Your task to perform on an android device: toggle sleep mode Image 0: 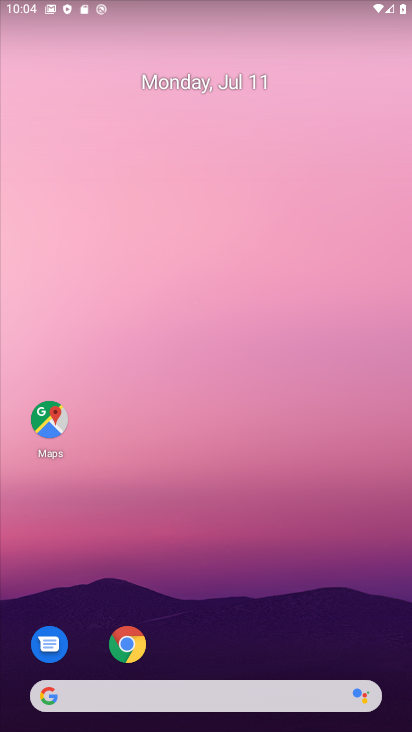
Step 0: drag from (255, 489) to (181, 212)
Your task to perform on an android device: toggle sleep mode Image 1: 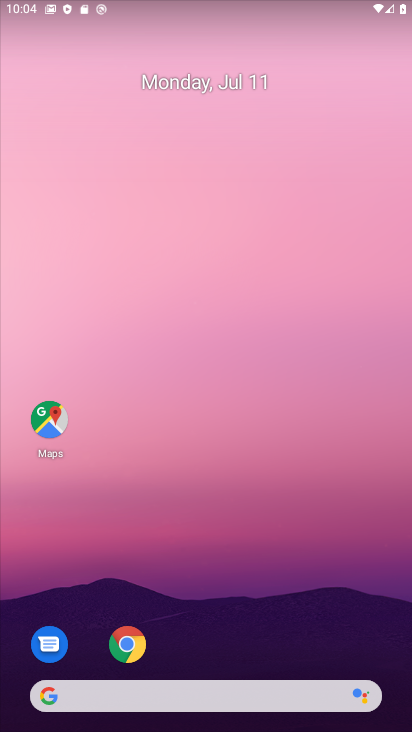
Step 1: drag from (276, 690) to (189, 121)
Your task to perform on an android device: toggle sleep mode Image 2: 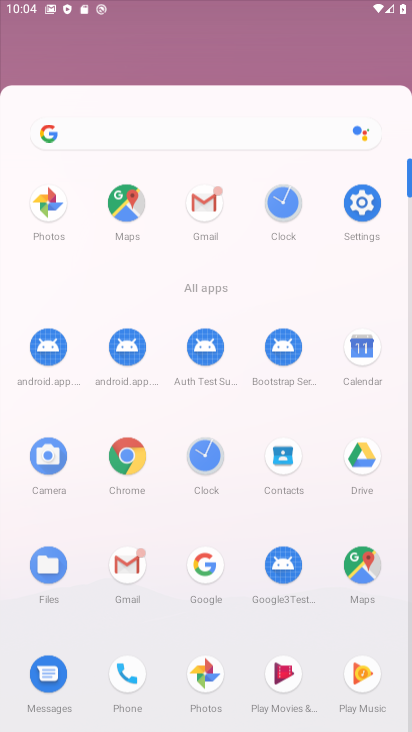
Step 2: drag from (242, 610) to (209, 52)
Your task to perform on an android device: toggle sleep mode Image 3: 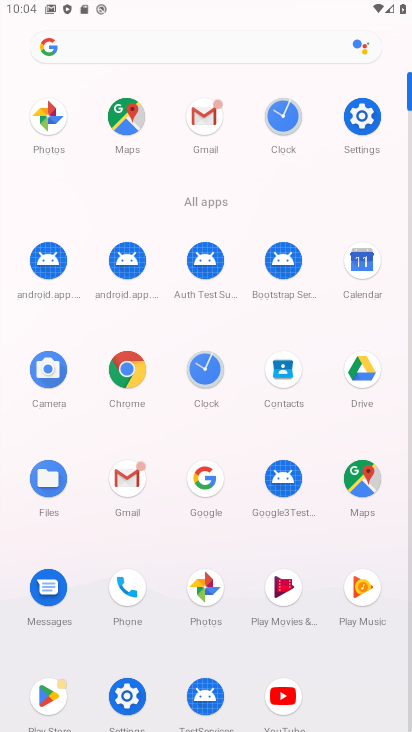
Step 3: drag from (242, 460) to (130, 46)
Your task to perform on an android device: toggle sleep mode Image 4: 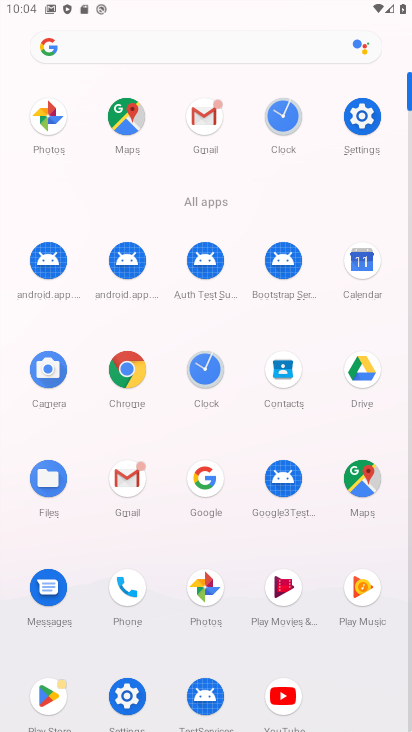
Step 4: click (368, 92)
Your task to perform on an android device: toggle sleep mode Image 5: 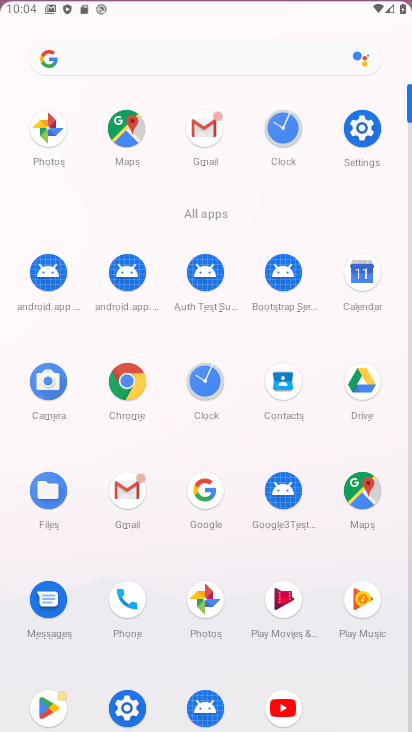
Step 5: click (363, 110)
Your task to perform on an android device: toggle sleep mode Image 6: 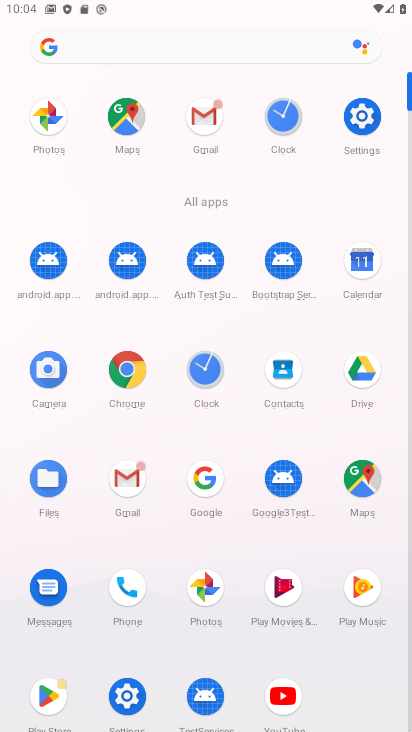
Step 6: click (361, 112)
Your task to perform on an android device: toggle sleep mode Image 7: 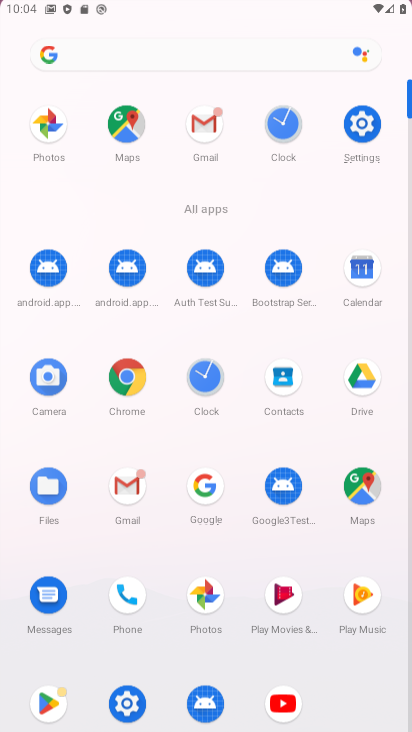
Step 7: click (360, 114)
Your task to perform on an android device: toggle sleep mode Image 8: 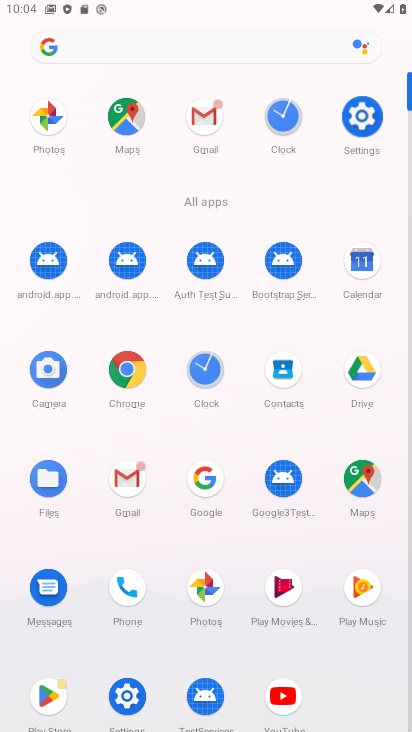
Step 8: click (355, 114)
Your task to perform on an android device: toggle sleep mode Image 9: 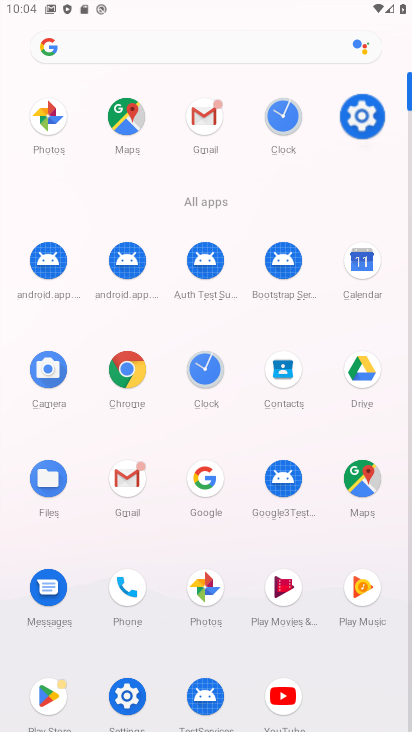
Step 9: click (355, 114)
Your task to perform on an android device: toggle sleep mode Image 10: 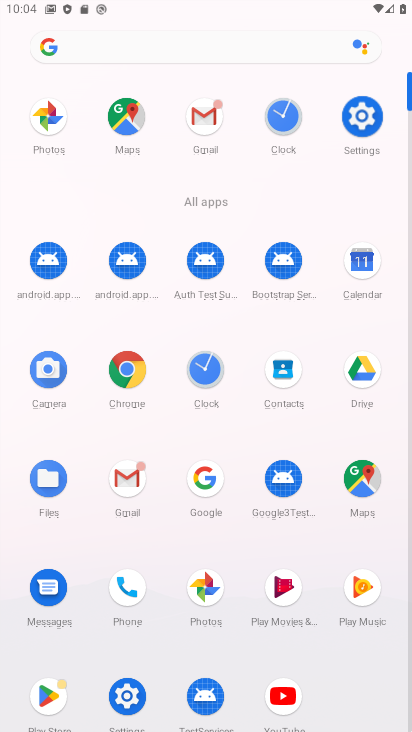
Step 10: click (355, 115)
Your task to perform on an android device: toggle sleep mode Image 11: 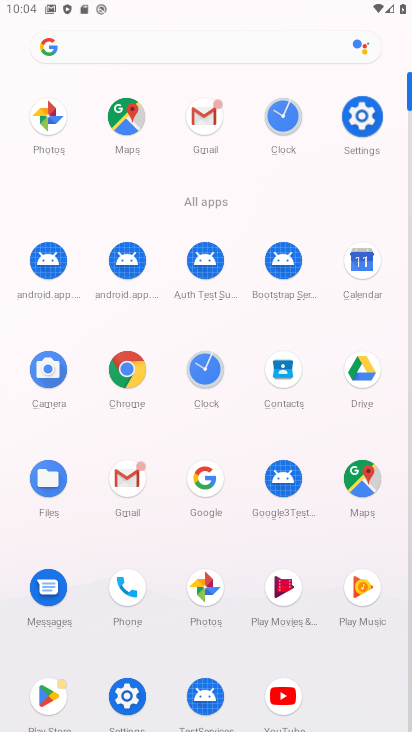
Step 11: click (357, 115)
Your task to perform on an android device: toggle sleep mode Image 12: 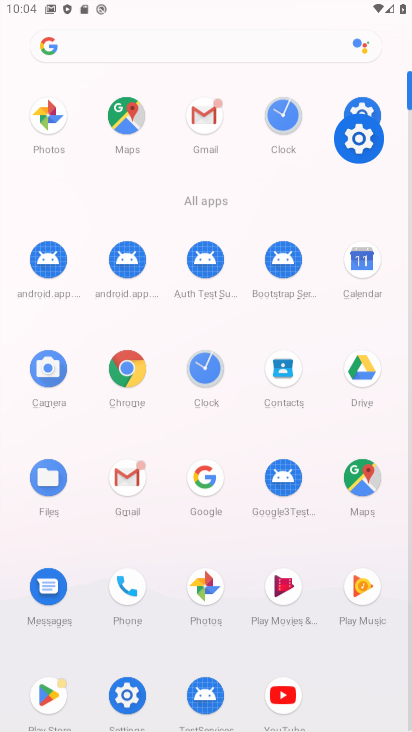
Step 12: click (361, 117)
Your task to perform on an android device: toggle sleep mode Image 13: 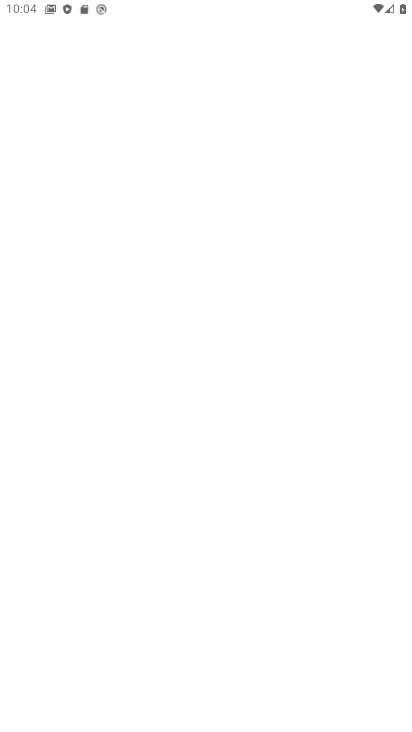
Step 13: click (361, 117)
Your task to perform on an android device: toggle sleep mode Image 14: 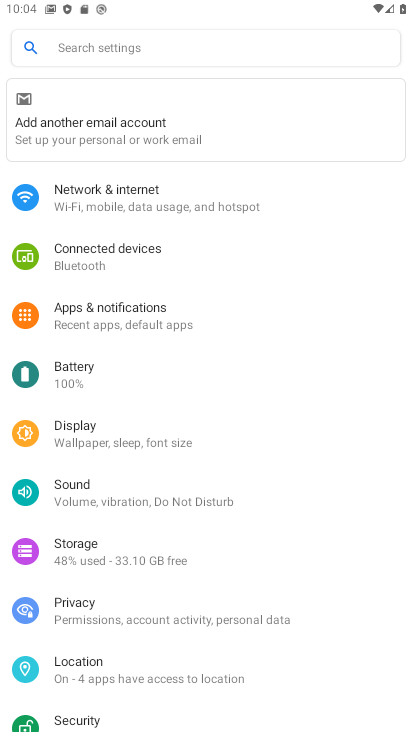
Step 14: drag from (168, 583) to (137, 221)
Your task to perform on an android device: toggle sleep mode Image 15: 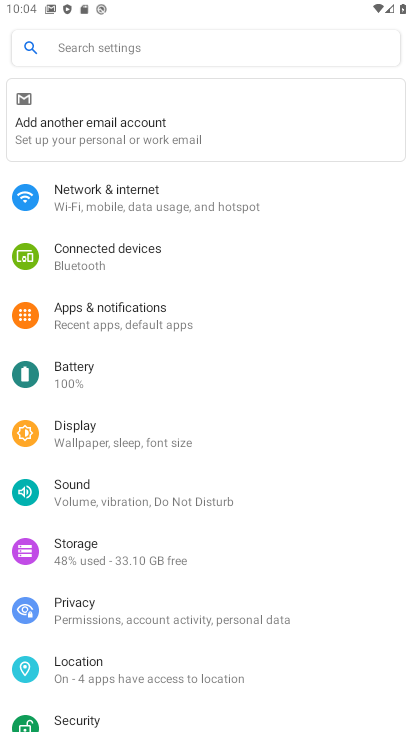
Step 15: click (69, 434)
Your task to perform on an android device: toggle sleep mode Image 16: 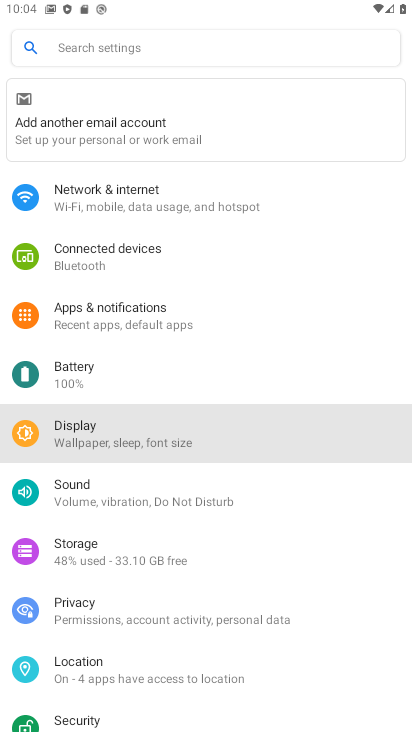
Step 16: click (71, 429)
Your task to perform on an android device: toggle sleep mode Image 17: 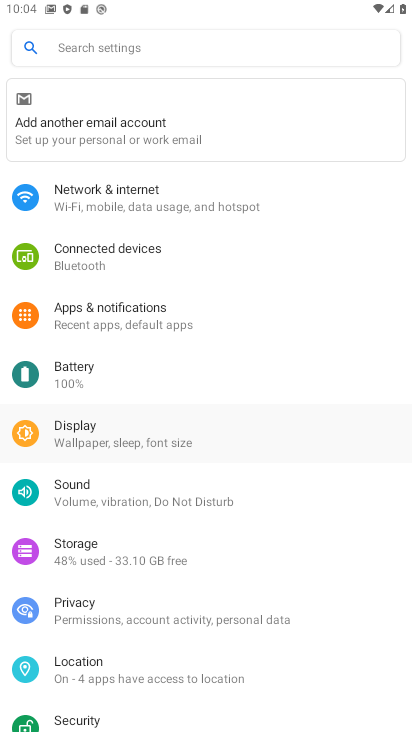
Step 17: click (71, 429)
Your task to perform on an android device: toggle sleep mode Image 18: 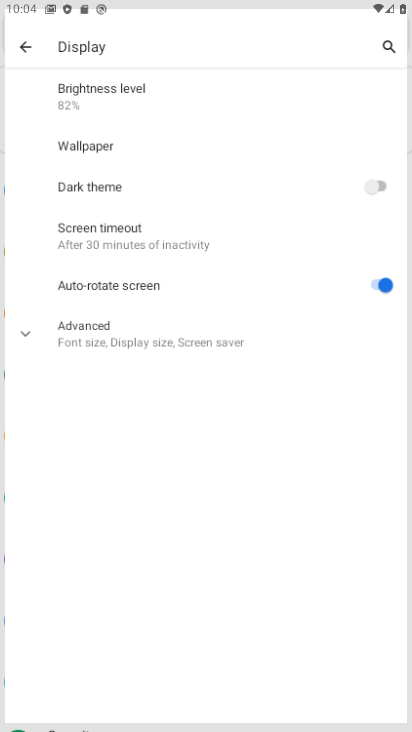
Step 18: click (71, 429)
Your task to perform on an android device: toggle sleep mode Image 19: 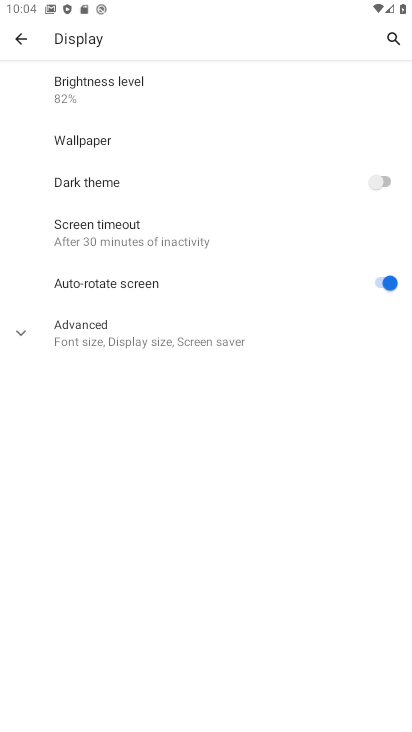
Step 19: click (74, 431)
Your task to perform on an android device: toggle sleep mode Image 20: 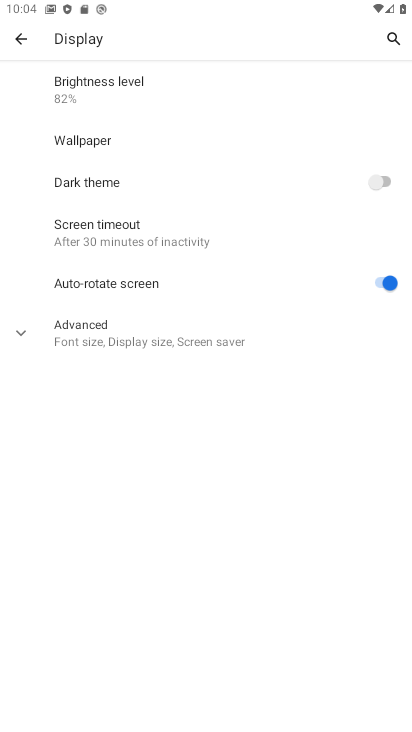
Step 20: click (22, 39)
Your task to perform on an android device: toggle sleep mode Image 21: 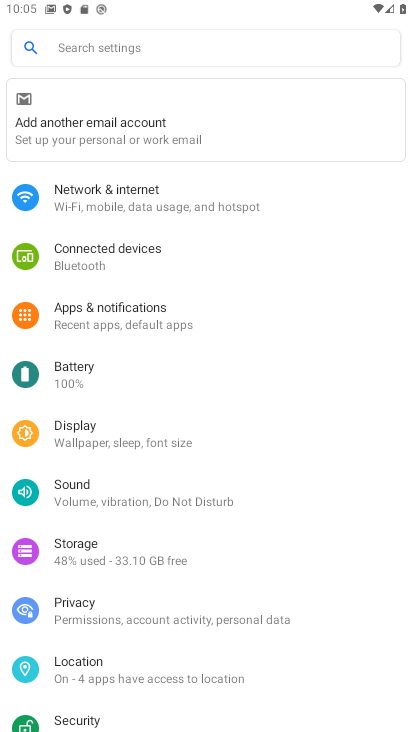
Step 21: task complete